Your task to perform on an android device: turn off picture-in-picture Image 0: 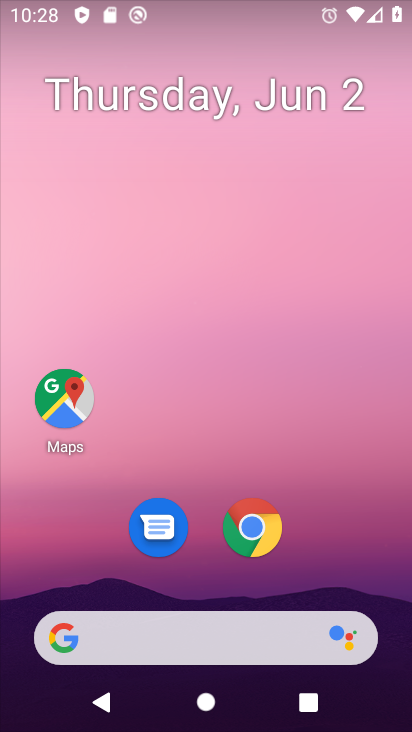
Step 0: click (250, 544)
Your task to perform on an android device: turn off picture-in-picture Image 1: 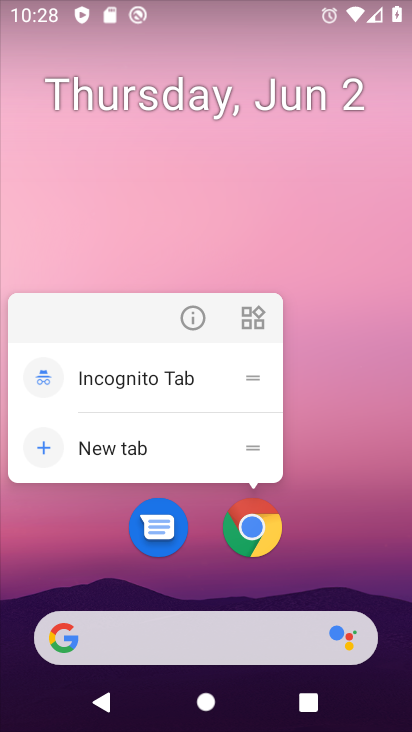
Step 1: click (190, 318)
Your task to perform on an android device: turn off picture-in-picture Image 2: 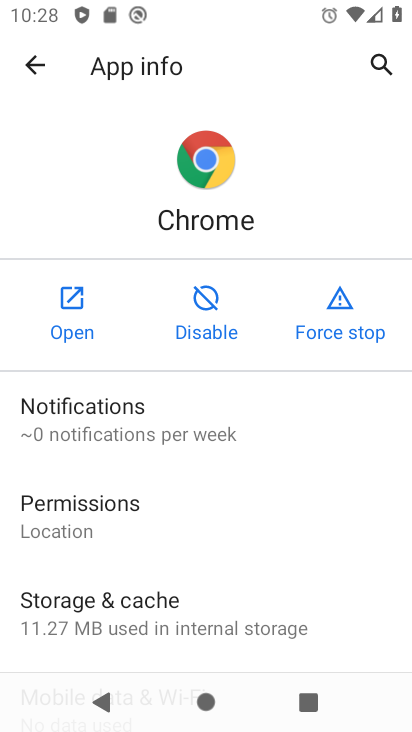
Step 2: drag from (118, 598) to (122, 274)
Your task to perform on an android device: turn off picture-in-picture Image 3: 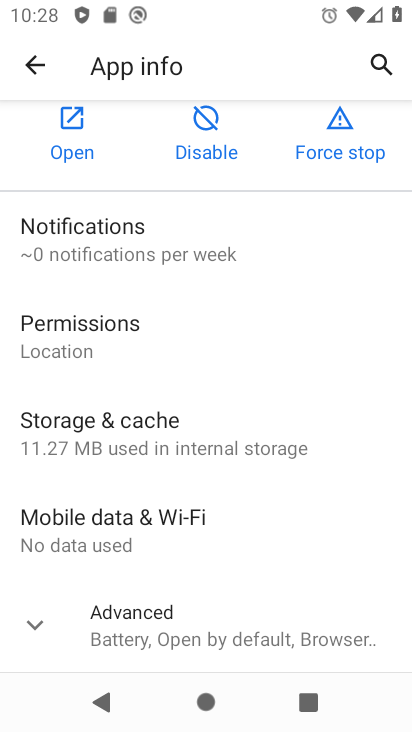
Step 3: click (134, 629)
Your task to perform on an android device: turn off picture-in-picture Image 4: 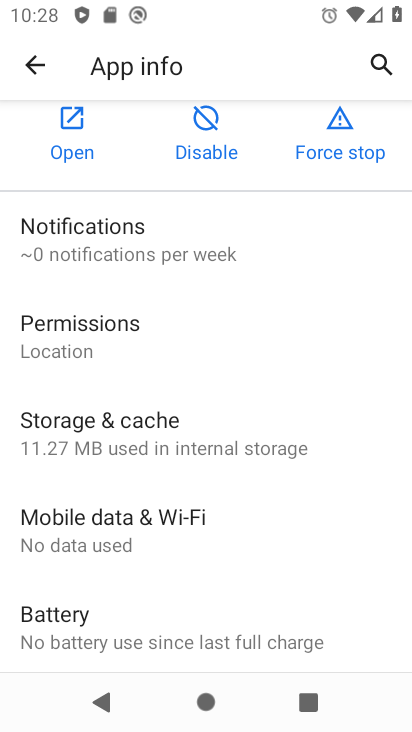
Step 4: drag from (138, 615) to (142, 270)
Your task to perform on an android device: turn off picture-in-picture Image 5: 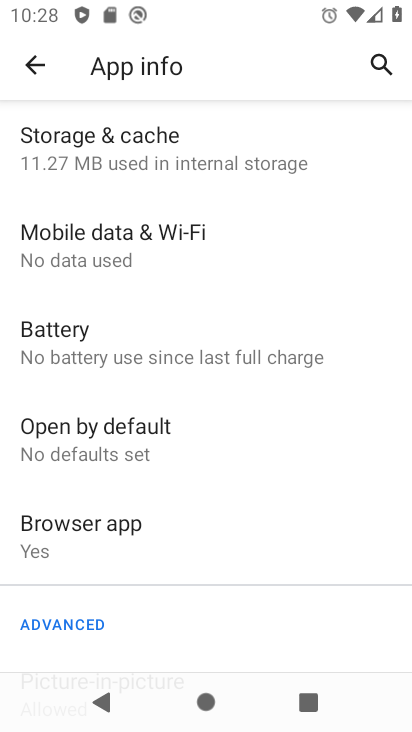
Step 5: drag from (171, 552) to (165, 132)
Your task to perform on an android device: turn off picture-in-picture Image 6: 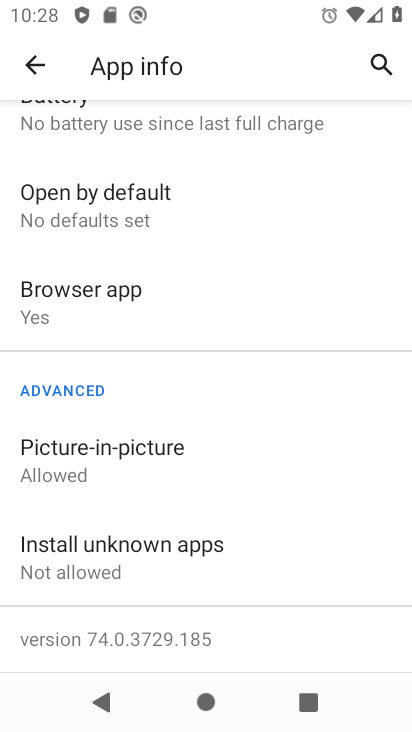
Step 6: click (186, 453)
Your task to perform on an android device: turn off picture-in-picture Image 7: 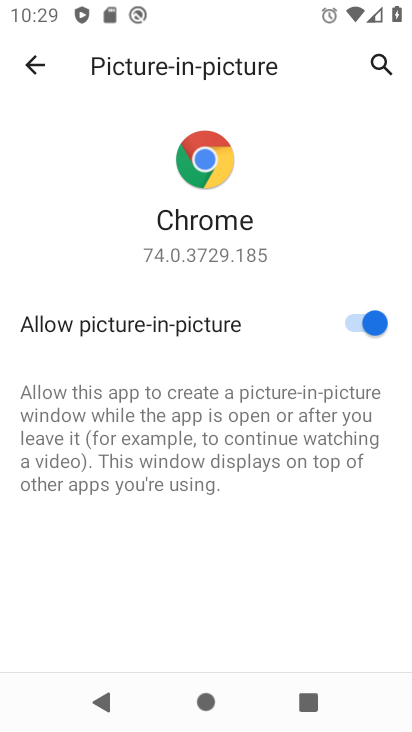
Step 7: click (364, 334)
Your task to perform on an android device: turn off picture-in-picture Image 8: 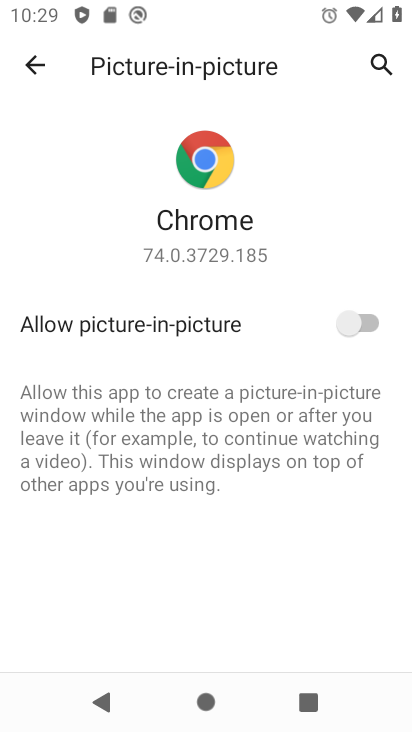
Step 8: task complete